Your task to perform on an android device: Go to display settings Image 0: 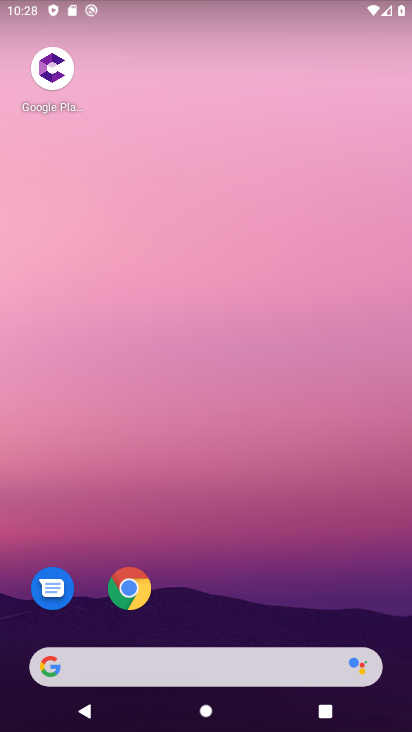
Step 0: drag from (290, 638) to (320, 87)
Your task to perform on an android device: Go to display settings Image 1: 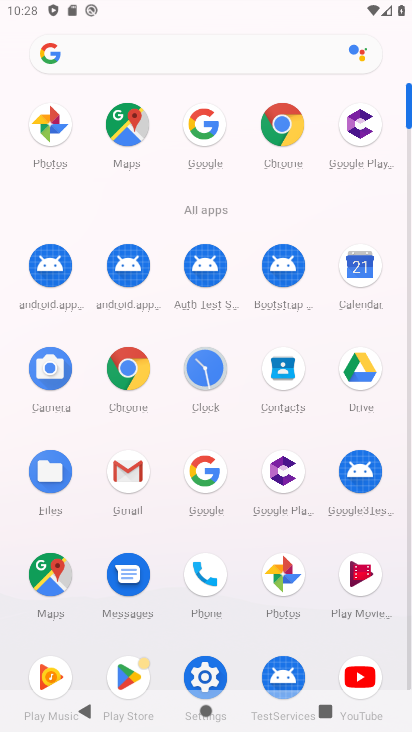
Step 1: click (214, 675)
Your task to perform on an android device: Go to display settings Image 2: 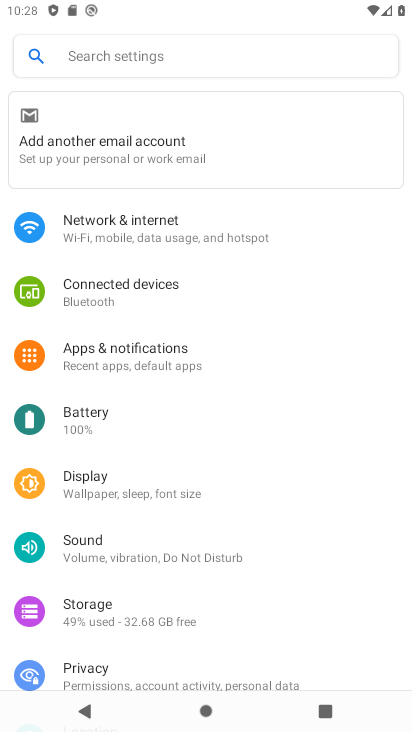
Step 2: click (136, 486)
Your task to perform on an android device: Go to display settings Image 3: 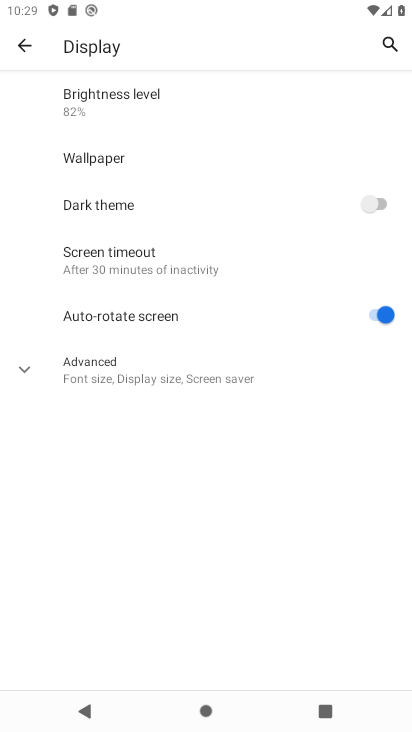
Step 3: task complete